Your task to perform on an android device: toggle show notifications on the lock screen Image 0: 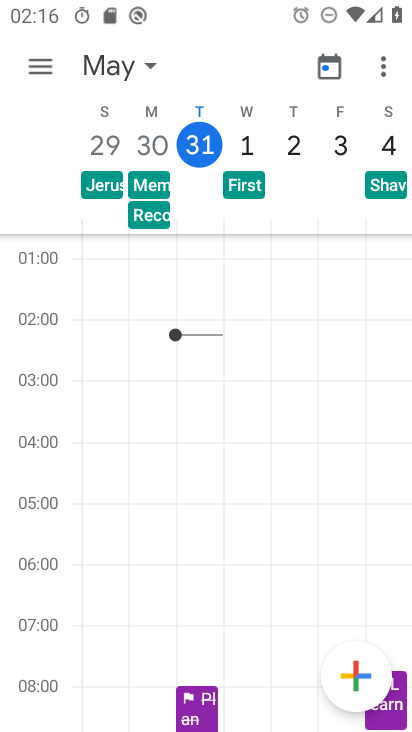
Step 0: press home button
Your task to perform on an android device: toggle show notifications on the lock screen Image 1: 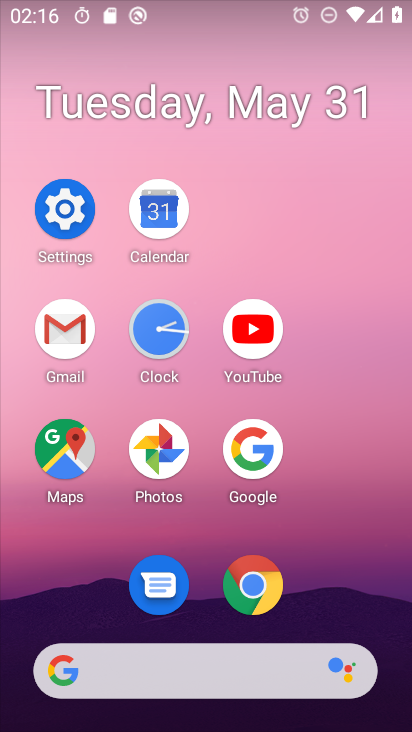
Step 1: click (59, 230)
Your task to perform on an android device: toggle show notifications on the lock screen Image 2: 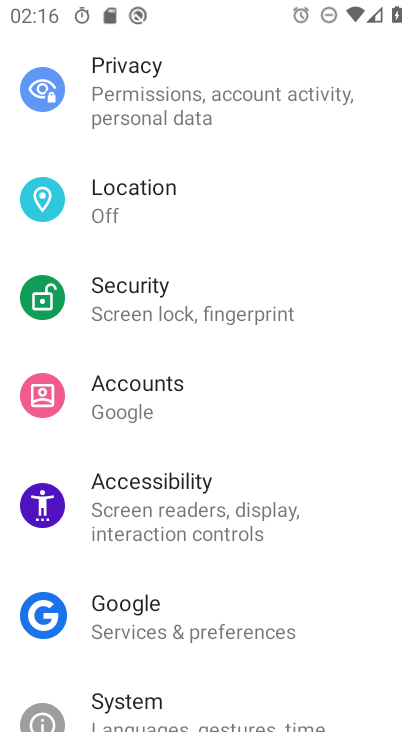
Step 2: drag from (288, 198) to (257, 649)
Your task to perform on an android device: toggle show notifications on the lock screen Image 3: 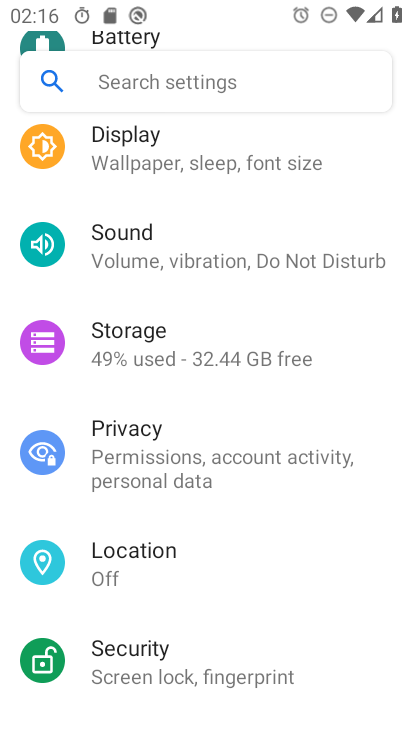
Step 3: drag from (316, 179) to (297, 626)
Your task to perform on an android device: toggle show notifications on the lock screen Image 4: 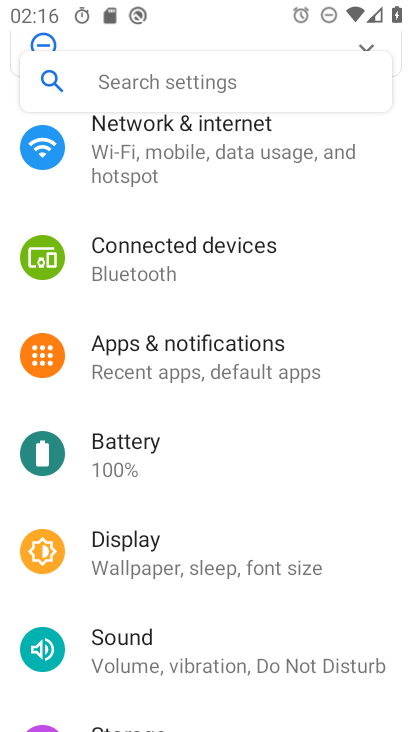
Step 4: click (177, 375)
Your task to perform on an android device: toggle show notifications on the lock screen Image 5: 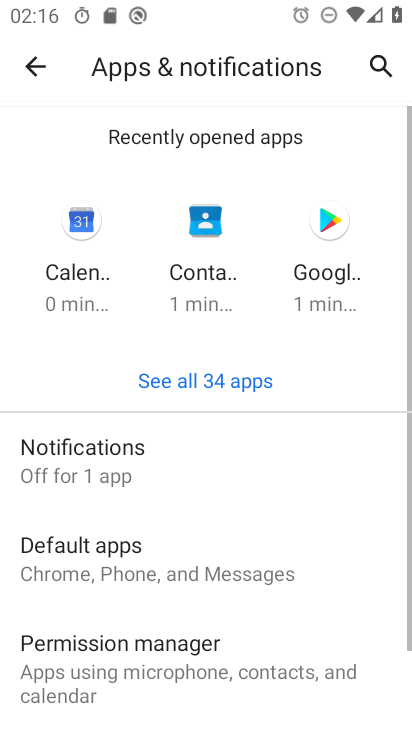
Step 5: click (192, 475)
Your task to perform on an android device: toggle show notifications on the lock screen Image 6: 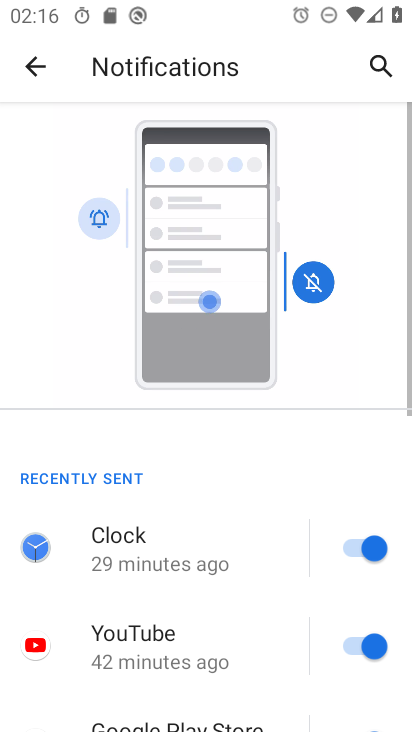
Step 6: drag from (202, 573) to (244, 207)
Your task to perform on an android device: toggle show notifications on the lock screen Image 7: 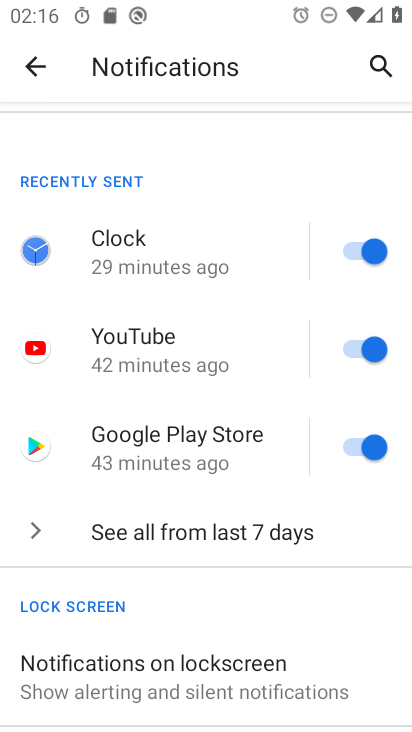
Step 7: click (217, 673)
Your task to perform on an android device: toggle show notifications on the lock screen Image 8: 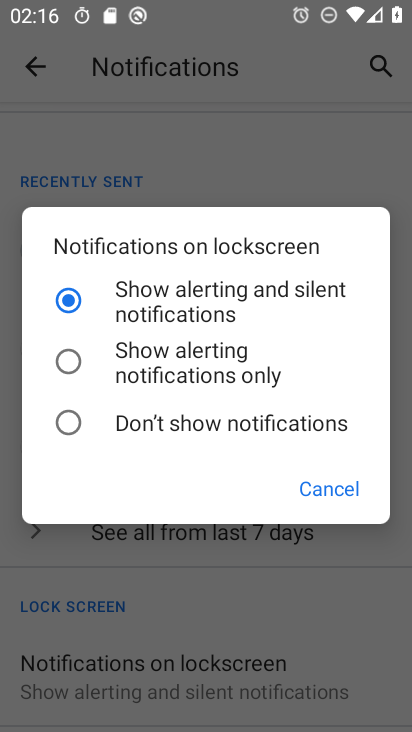
Step 8: click (190, 359)
Your task to perform on an android device: toggle show notifications on the lock screen Image 9: 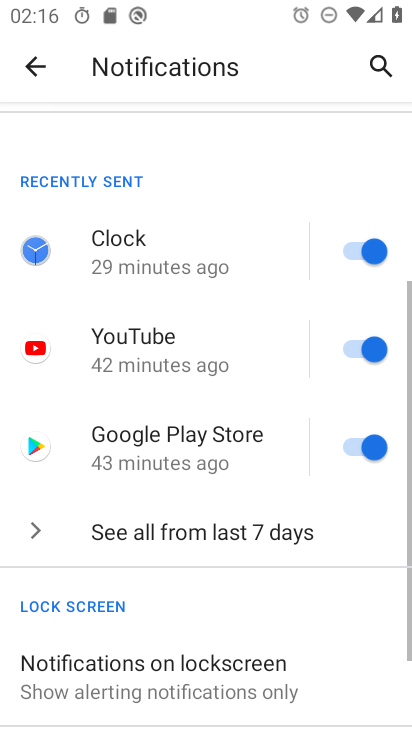
Step 9: task complete